Your task to perform on an android device: Search for the best rated drill on Lowes.com Image 0: 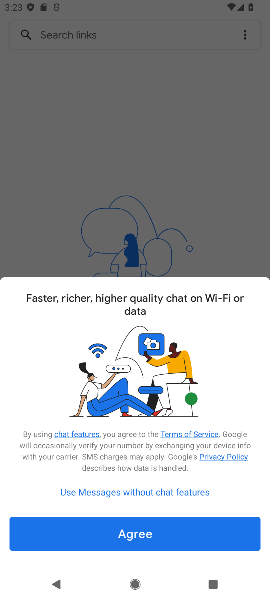
Step 0: press home button
Your task to perform on an android device: Search for the best rated drill on Lowes.com Image 1: 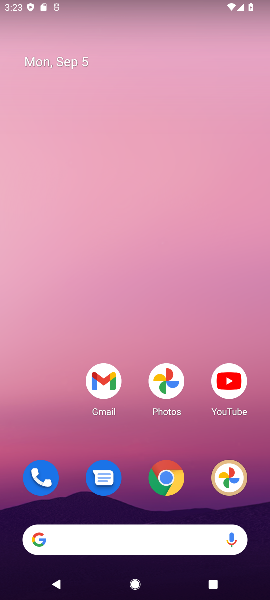
Step 1: click (175, 485)
Your task to perform on an android device: Search for the best rated drill on Lowes.com Image 2: 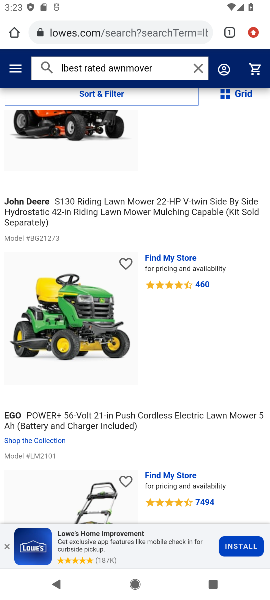
Step 2: click (199, 71)
Your task to perform on an android device: Search for the best rated drill on Lowes.com Image 3: 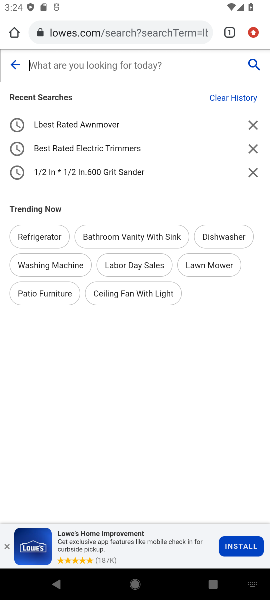
Step 3: type "best rated drill"
Your task to perform on an android device: Search for the best rated drill on Lowes.com Image 4: 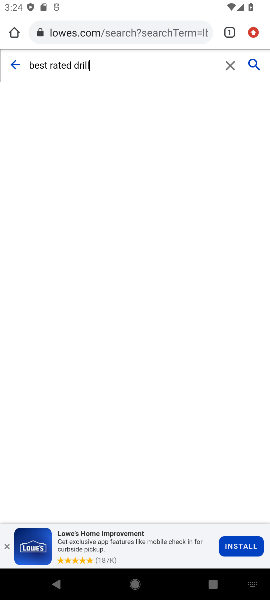
Step 4: click (251, 63)
Your task to perform on an android device: Search for the best rated drill on Lowes.com Image 5: 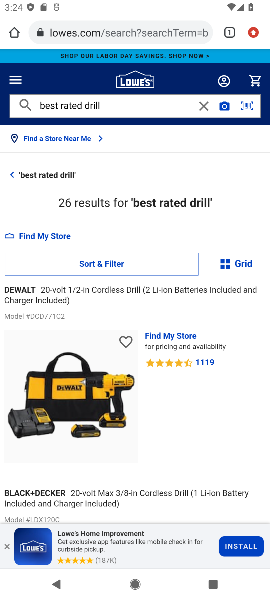
Step 5: task complete